Your task to perform on an android device: change timer sound Image 0: 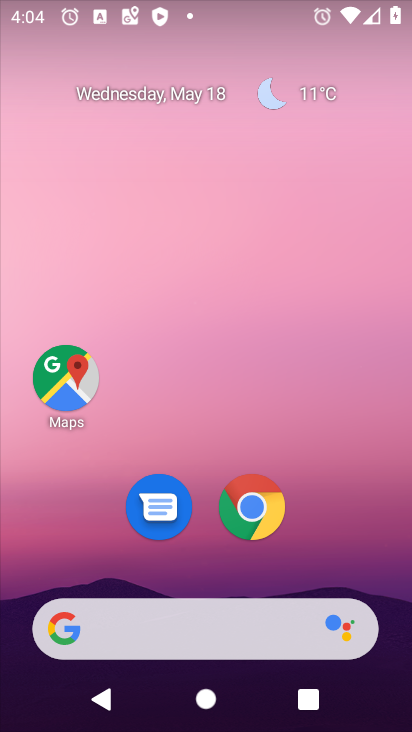
Step 0: drag from (397, 619) to (299, 167)
Your task to perform on an android device: change timer sound Image 1: 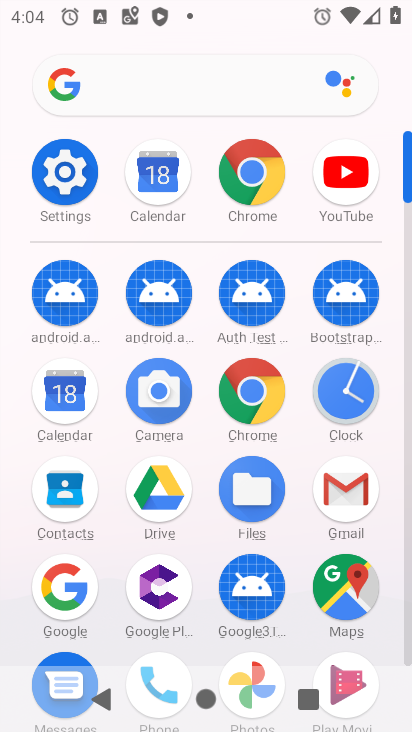
Step 1: click (406, 654)
Your task to perform on an android device: change timer sound Image 2: 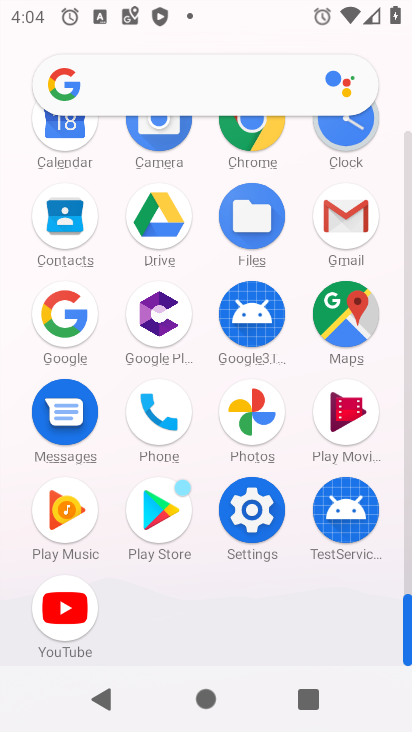
Step 2: click (351, 137)
Your task to perform on an android device: change timer sound Image 3: 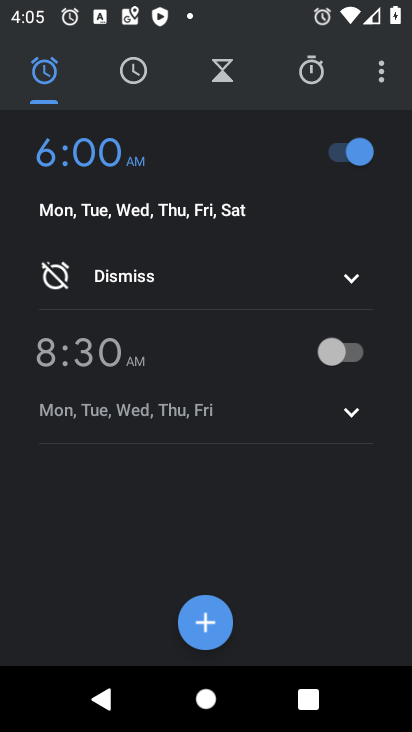
Step 3: click (381, 81)
Your task to perform on an android device: change timer sound Image 4: 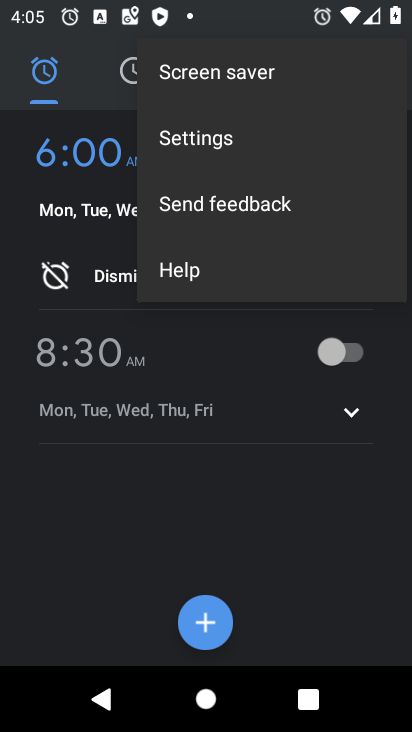
Step 4: click (200, 140)
Your task to perform on an android device: change timer sound Image 5: 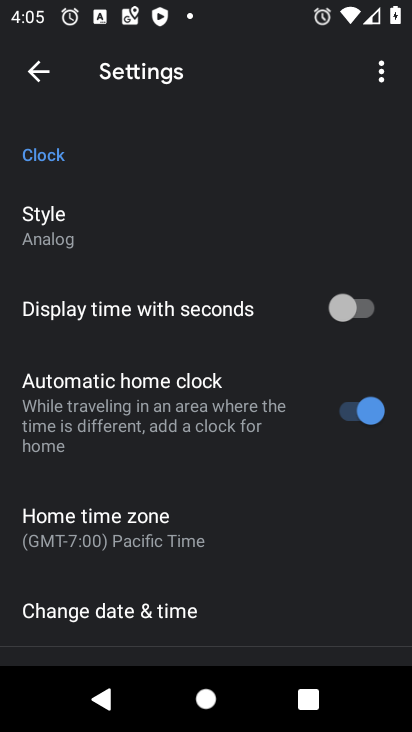
Step 5: drag from (263, 529) to (299, 142)
Your task to perform on an android device: change timer sound Image 6: 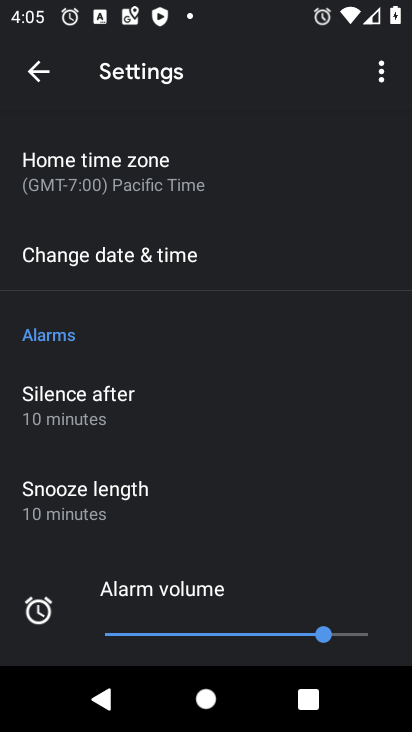
Step 6: drag from (274, 586) to (253, 214)
Your task to perform on an android device: change timer sound Image 7: 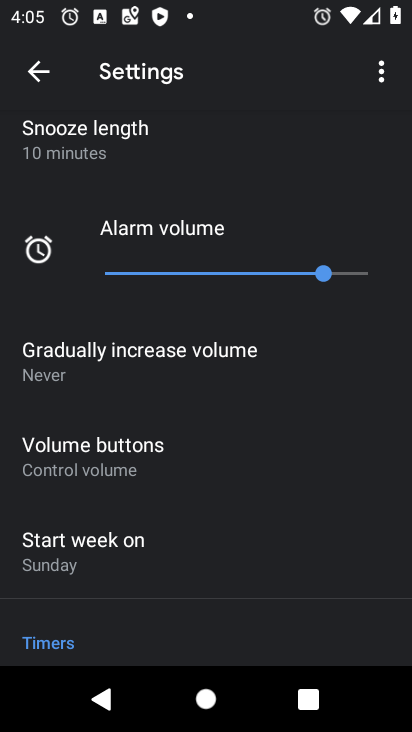
Step 7: drag from (182, 603) to (266, 229)
Your task to perform on an android device: change timer sound Image 8: 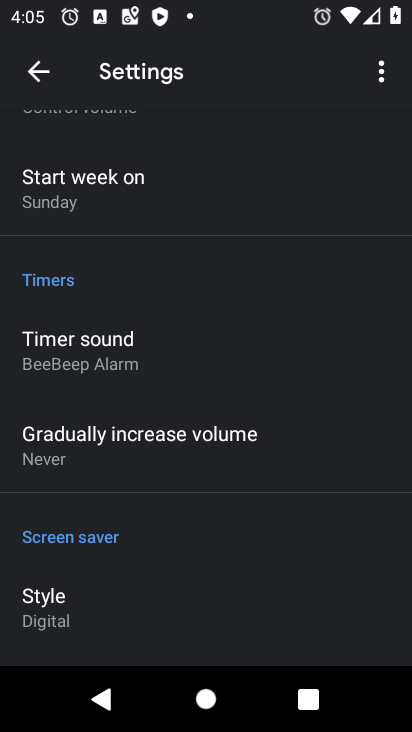
Step 8: click (77, 364)
Your task to perform on an android device: change timer sound Image 9: 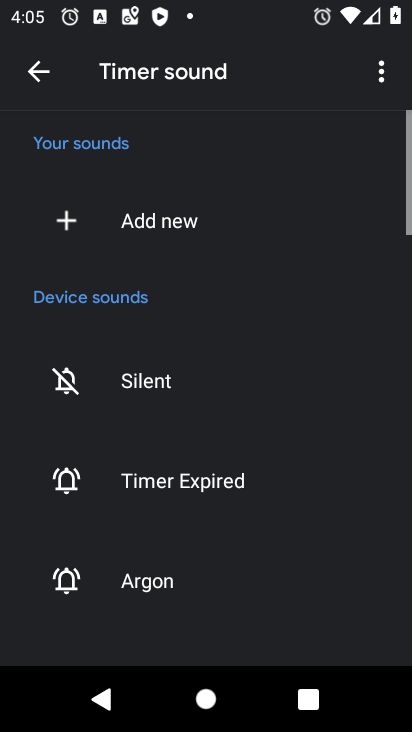
Step 9: drag from (262, 615) to (288, 182)
Your task to perform on an android device: change timer sound Image 10: 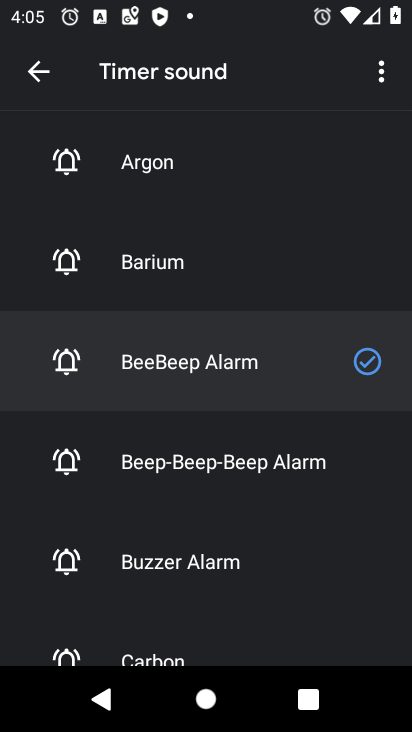
Step 10: click (179, 560)
Your task to perform on an android device: change timer sound Image 11: 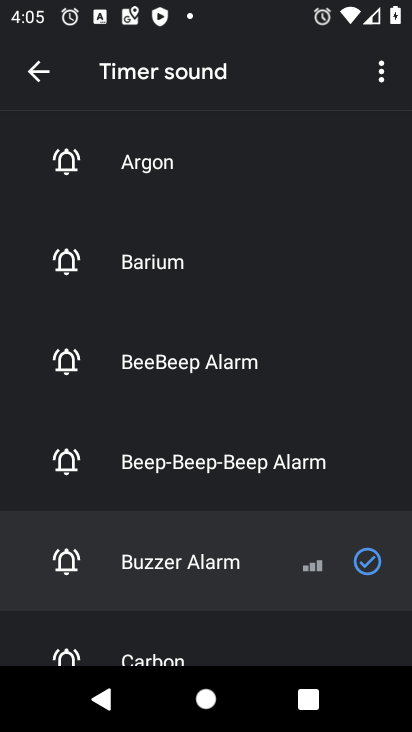
Step 11: task complete